Your task to perform on an android device: Set the phone to "Do not disturb". Image 0: 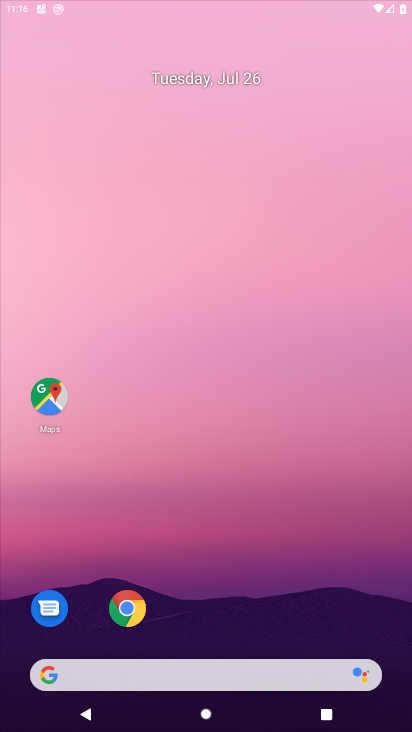
Step 0: drag from (232, 628) to (232, 144)
Your task to perform on an android device: Set the phone to "Do not disturb". Image 1: 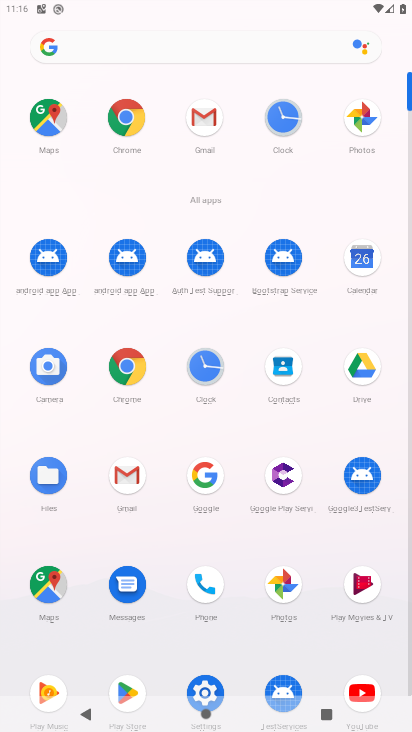
Step 1: click (206, 687)
Your task to perform on an android device: Set the phone to "Do not disturb". Image 2: 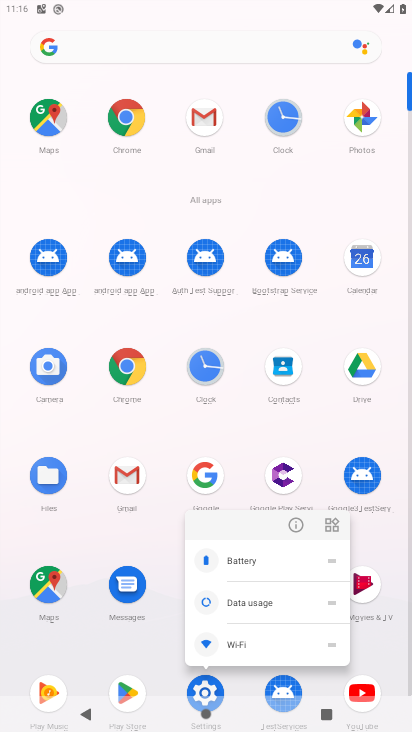
Step 2: click (292, 532)
Your task to perform on an android device: Set the phone to "Do not disturb". Image 3: 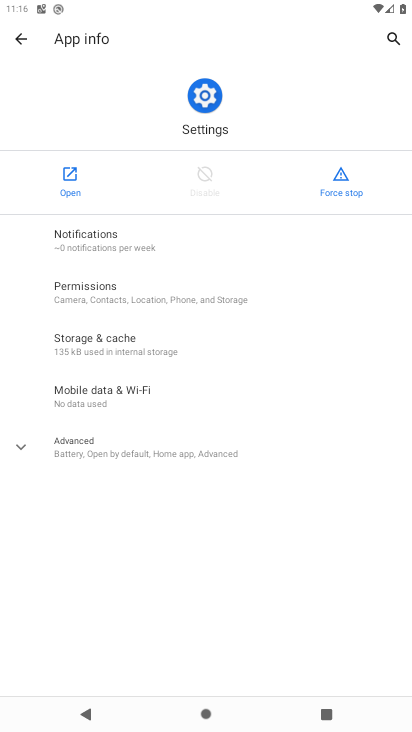
Step 3: click (70, 177)
Your task to perform on an android device: Set the phone to "Do not disturb". Image 4: 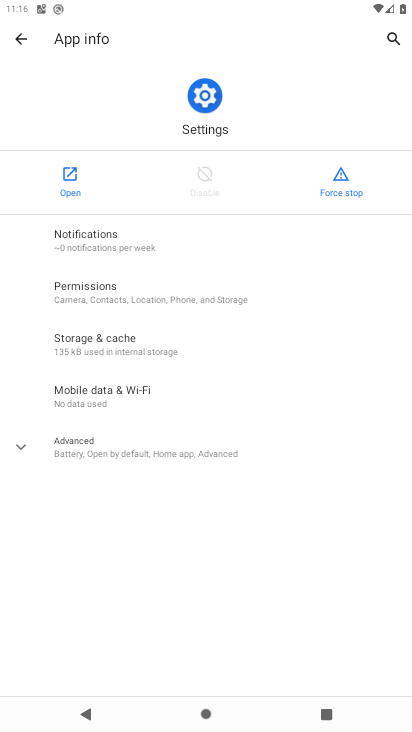
Step 4: click (71, 176)
Your task to perform on an android device: Set the phone to "Do not disturb". Image 5: 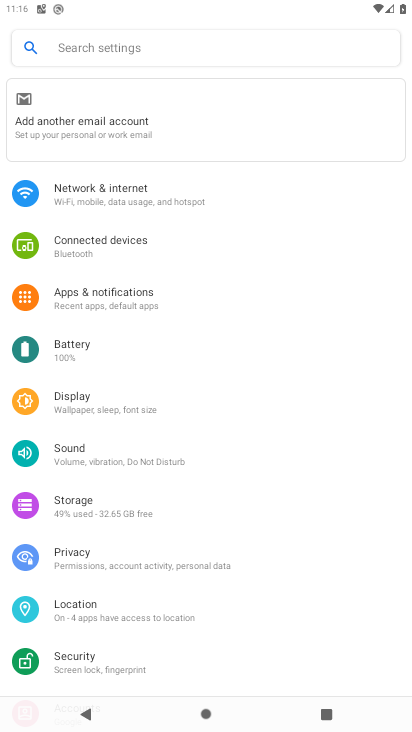
Step 5: click (115, 294)
Your task to perform on an android device: Set the phone to "Do not disturb". Image 6: 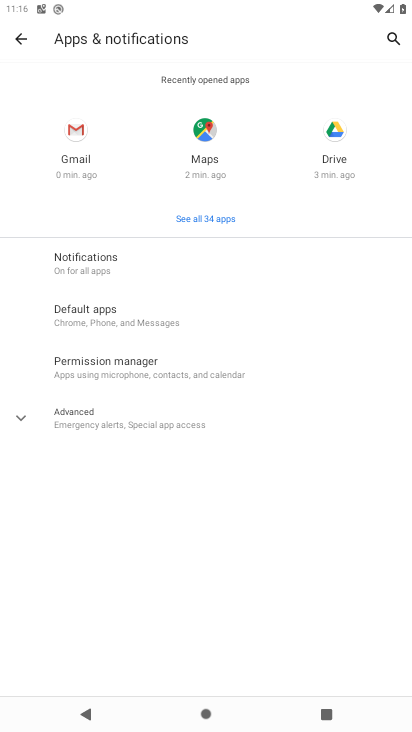
Step 6: click (123, 262)
Your task to perform on an android device: Set the phone to "Do not disturb". Image 7: 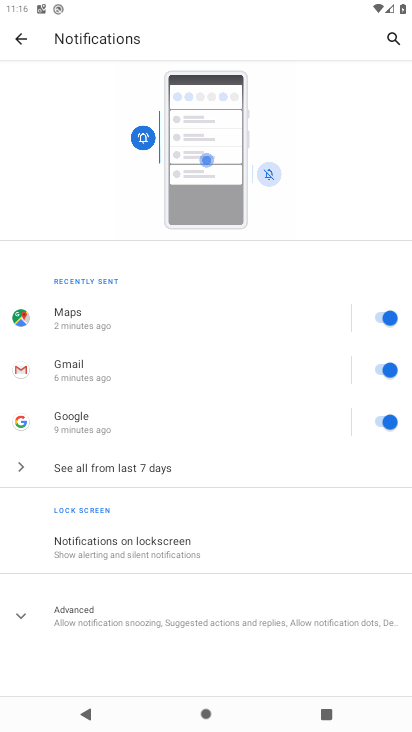
Step 7: click (120, 619)
Your task to perform on an android device: Set the phone to "Do not disturb". Image 8: 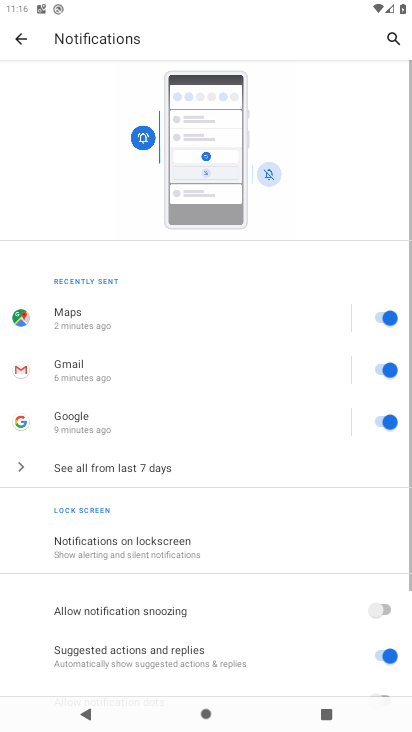
Step 8: drag from (172, 588) to (240, 212)
Your task to perform on an android device: Set the phone to "Do not disturb". Image 9: 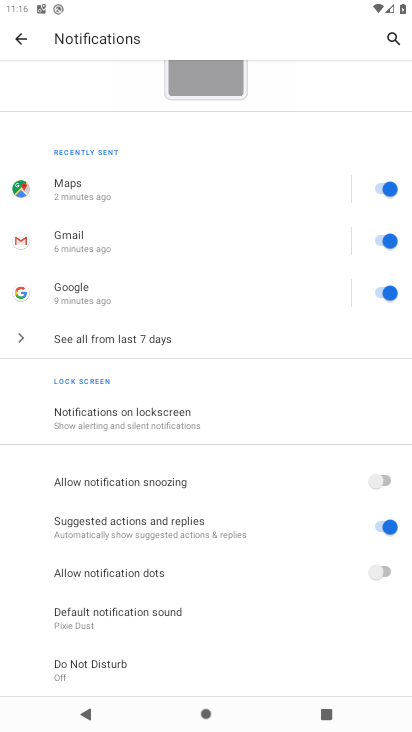
Step 9: click (104, 672)
Your task to perform on an android device: Set the phone to "Do not disturb". Image 10: 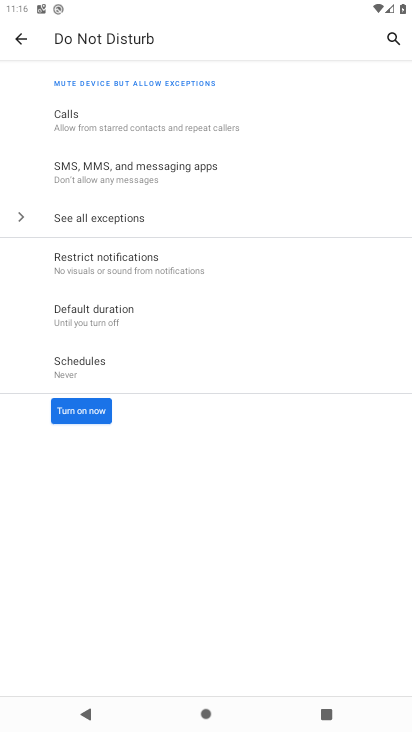
Step 10: drag from (147, 623) to (181, 312)
Your task to perform on an android device: Set the phone to "Do not disturb". Image 11: 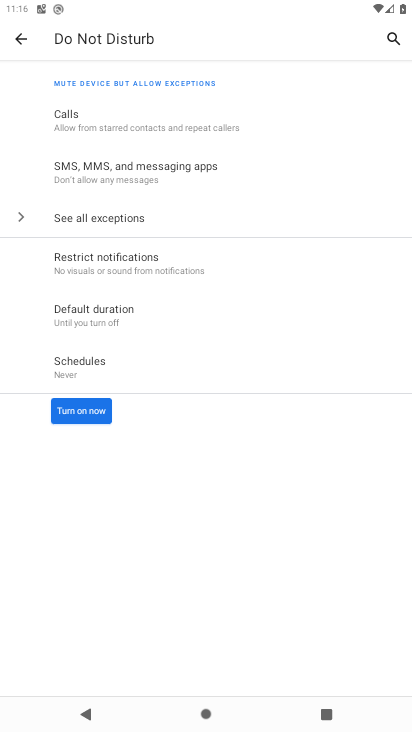
Step 11: click (78, 406)
Your task to perform on an android device: Set the phone to "Do not disturb". Image 12: 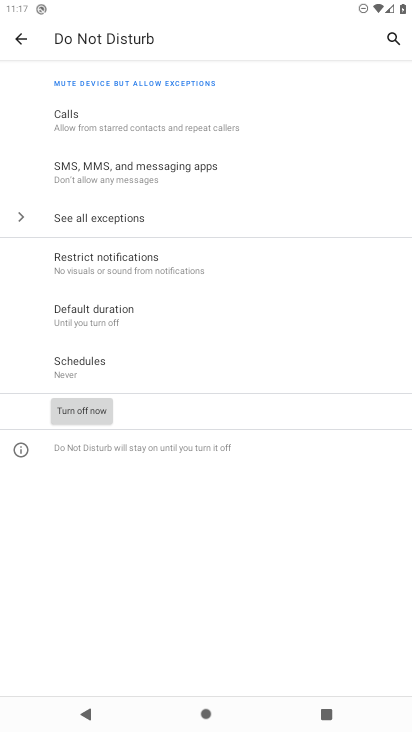
Step 12: task complete